Your task to perform on an android device: Open settings Image 0: 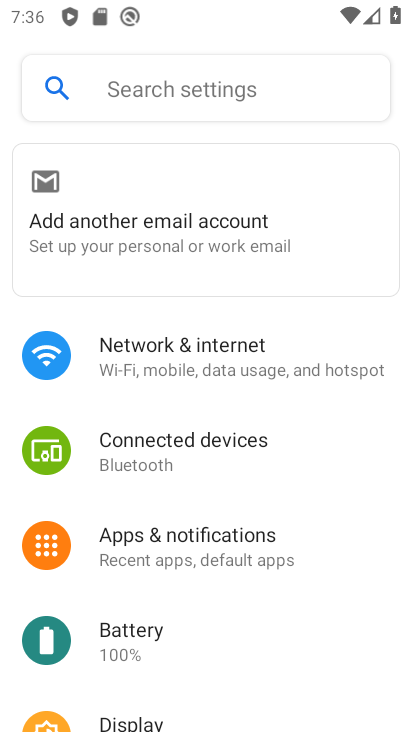
Step 0: drag from (111, 419) to (159, 164)
Your task to perform on an android device: Open settings Image 1: 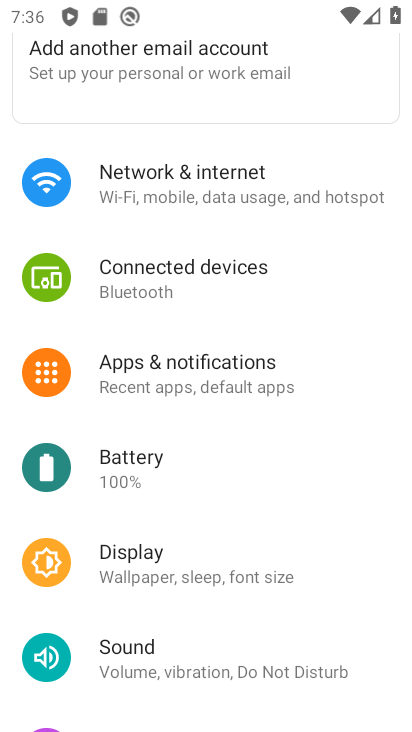
Step 1: task complete